Your task to perform on an android device: change the clock style Image 0: 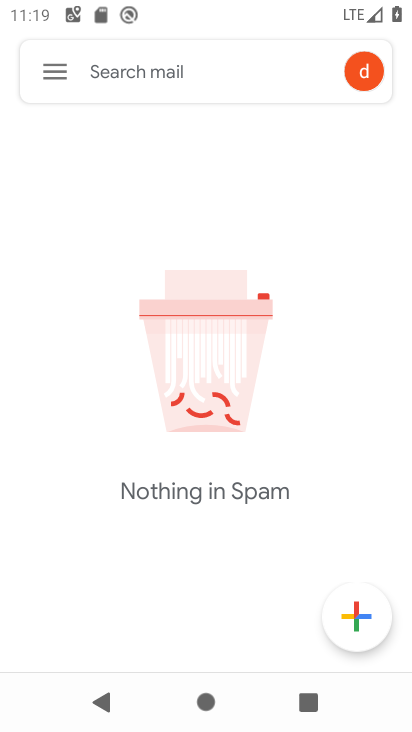
Step 0: press home button
Your task to perform on an android device: change the clock style Image 1: 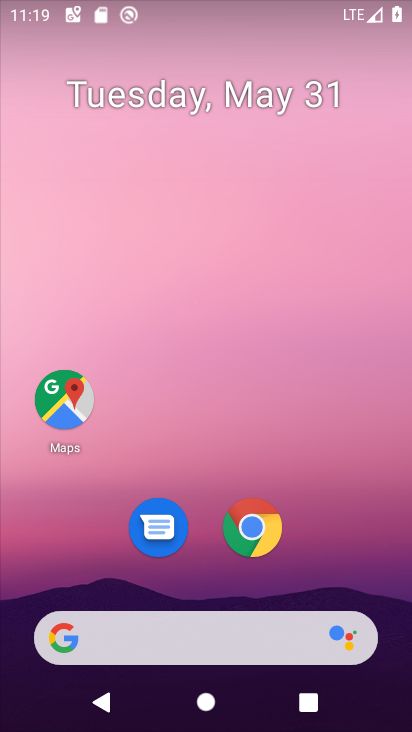
Step 1: drag from (327, 545) to (300, 17)
Your task to perform on an android device: change the clock style Image 2: 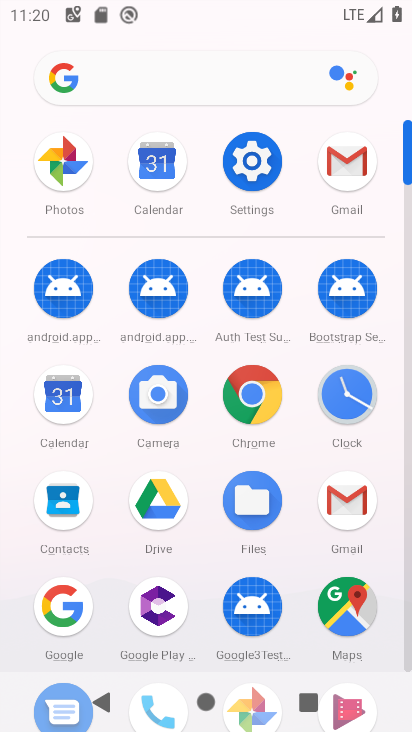
Step 2: click (349, 395)
Your task to perform on an android device: change the clock style Image 3: 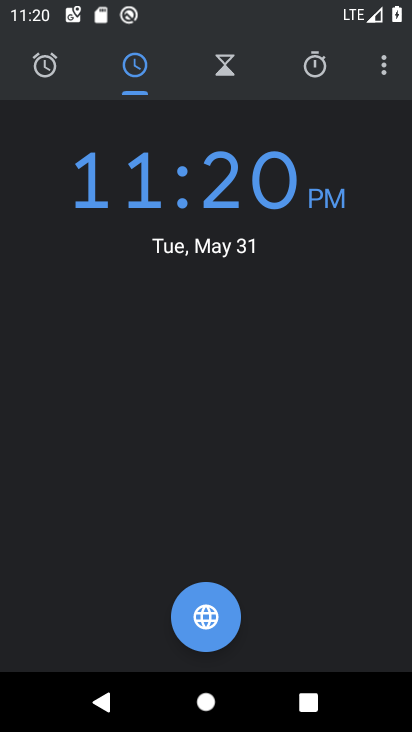
Step 3: click (383, 67)
Your task to perform on an android device: change the clock style Image 4: 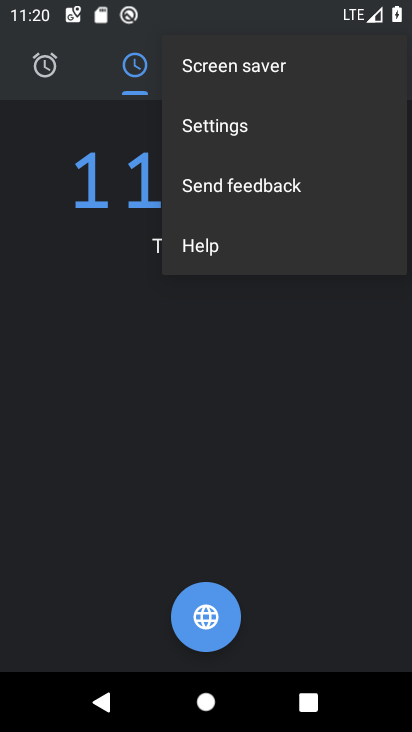
Step 4: click (204, 127)
Your task to perform on an android device: change the clock style Image 5: 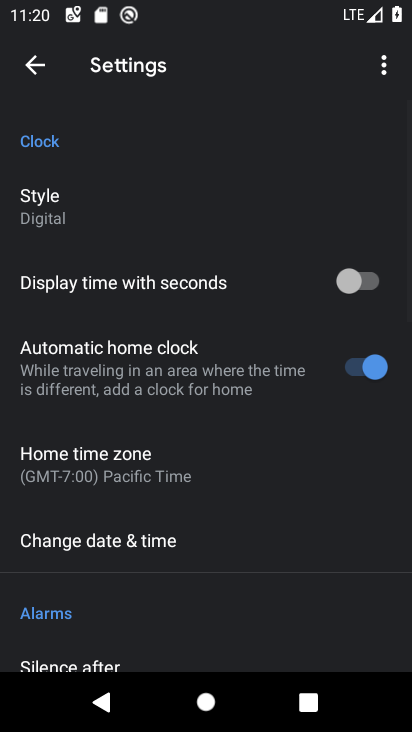
Step 5: click (48, 222)
Your task to perform on an android device: change the clock style Image 6: 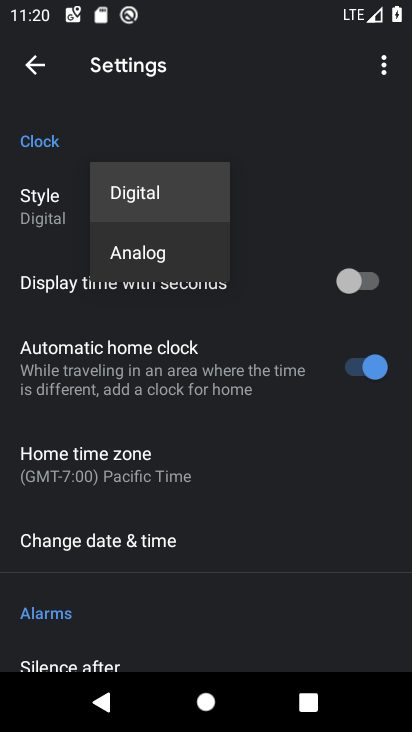
Step 6: click (125, 254)
Your task to perform on an android device: change the clock style Image 7: 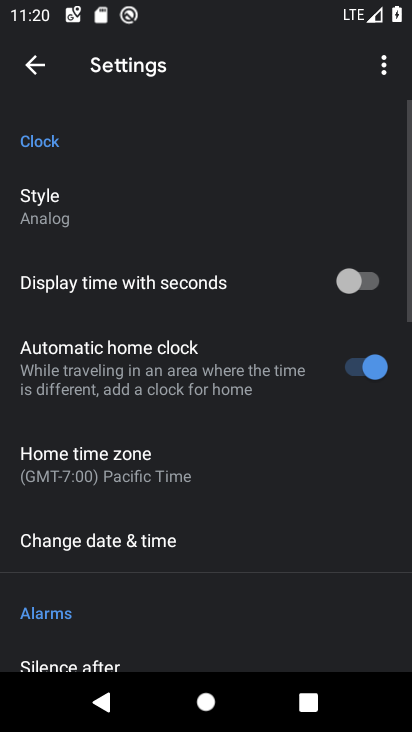
Step 7: task complete